Your task to perform on an android device: set the stopwatch Image 0: 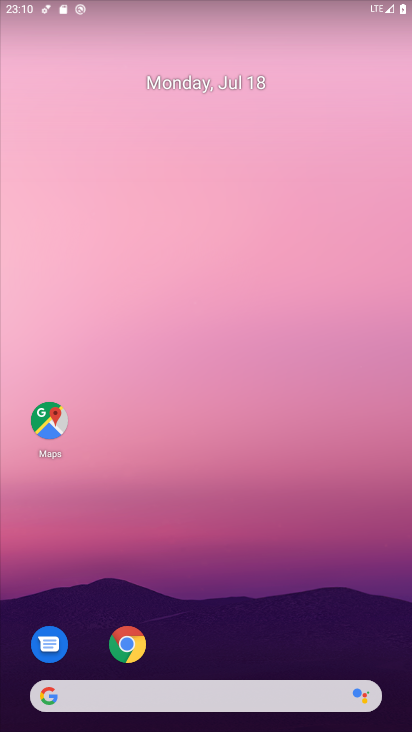
Step 0: drag from (337, 638) to (351, 92)
Your task to perform on an android device: set the stopwatch Image 1: 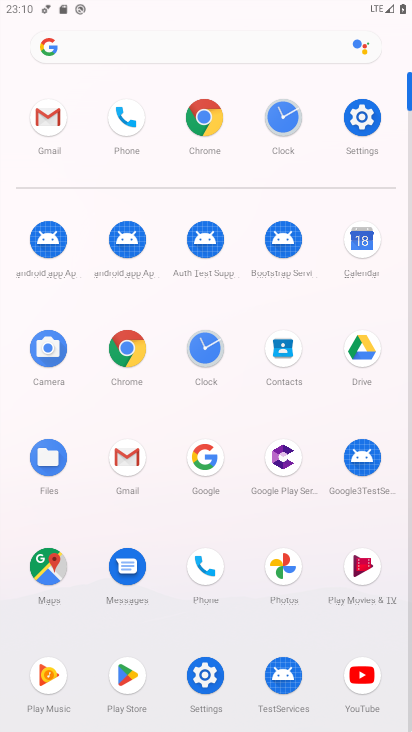
Step 1: click (211, 352)
Your task to perform on an android device: set the stopwatch Image 2: 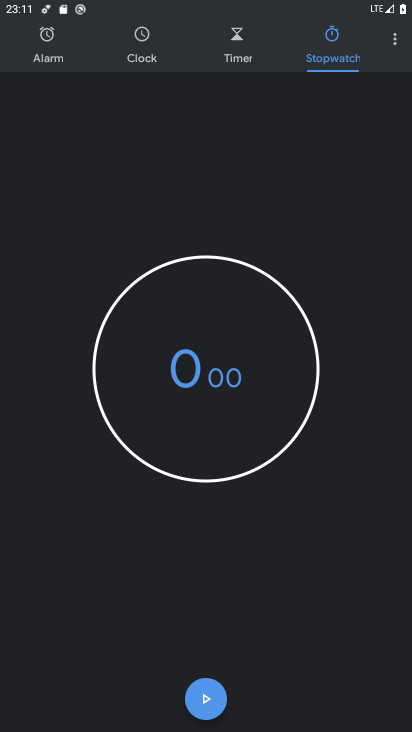
Step 2: task complete